Your task to perform on an android device: toggle show notifications on the lock screen Image 0: 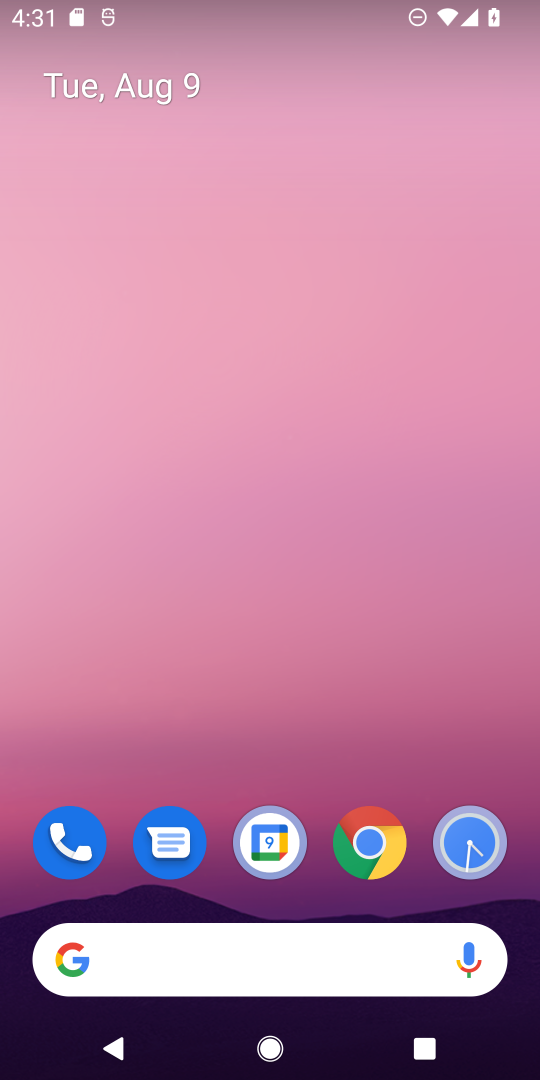
Step 0: drag from (382, 954) to (234, 342)
Your task to perform on an android device: toggle show notifications on the lock screen Image 1: 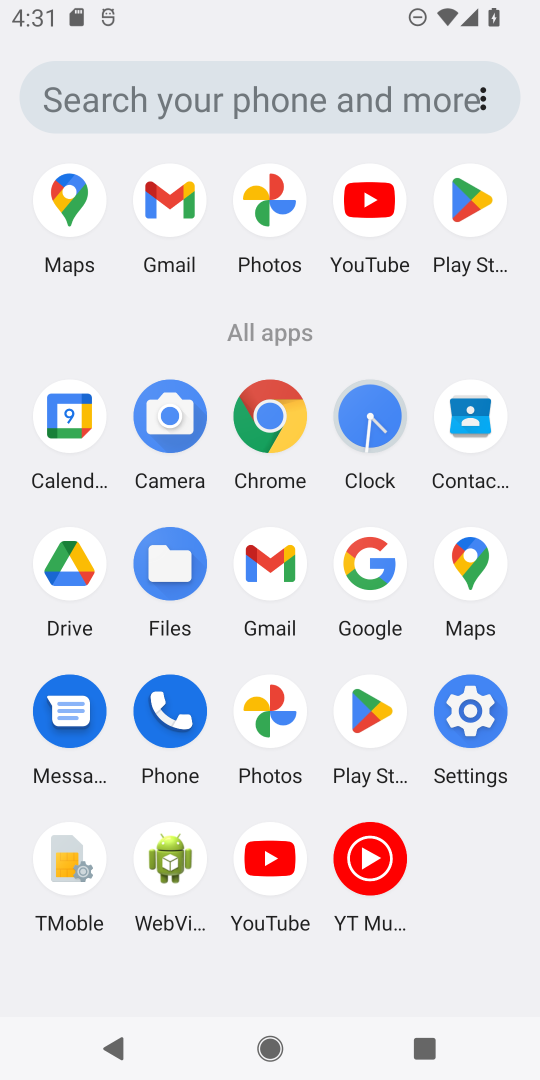
Step 1: click (501, 721)
Your task to perform on an android device: toggle show notifications on the lock screen Image 2: 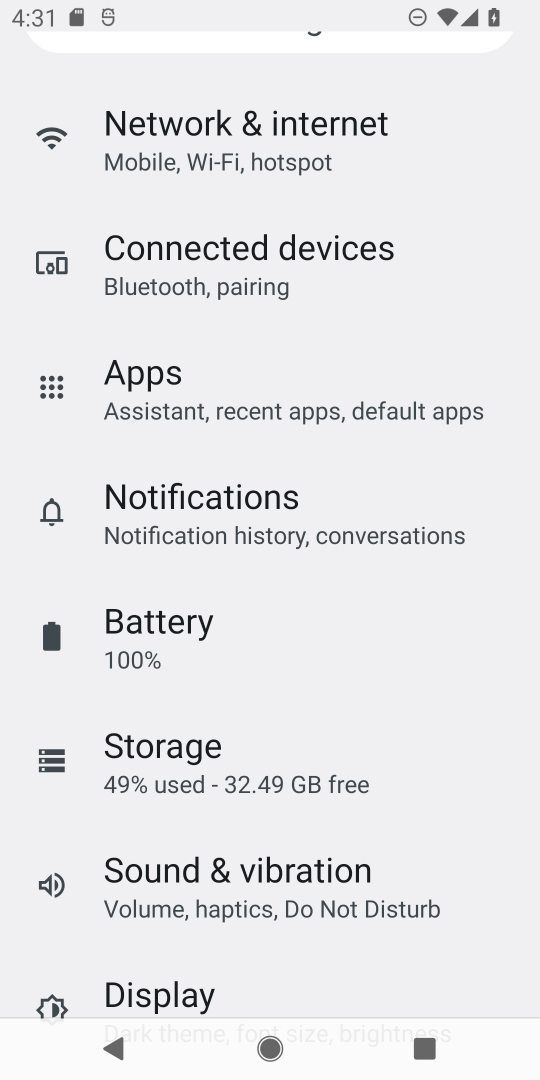
Step 2: click (264, 526)
Your task to perform on an android device: toggle show notifications on the lock screen Image 3: 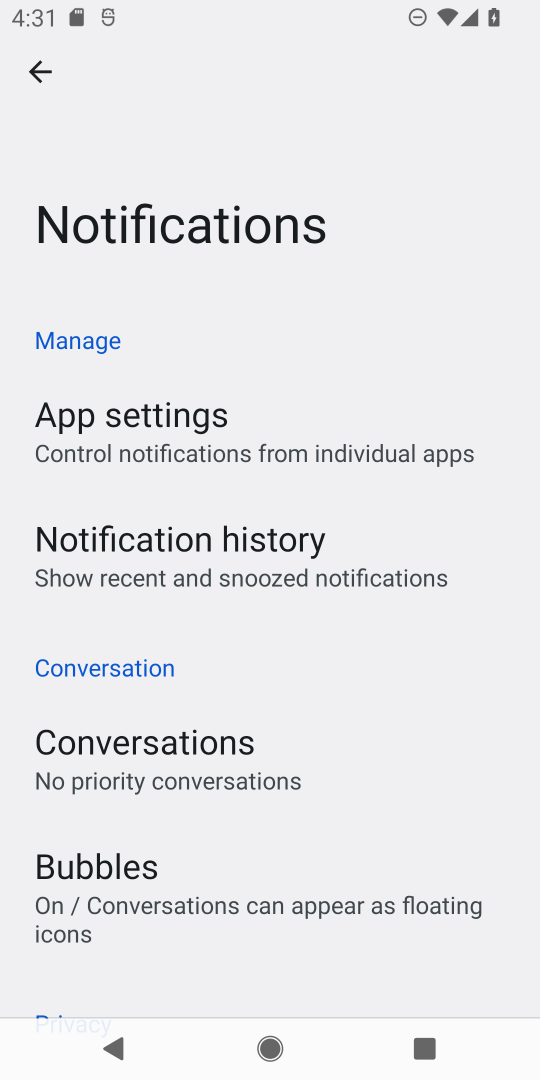
Step 3: drag from (380, 959) to (413, 346)
Your task to perform on an android device: toggle show notifications on the lock screen Image 4: 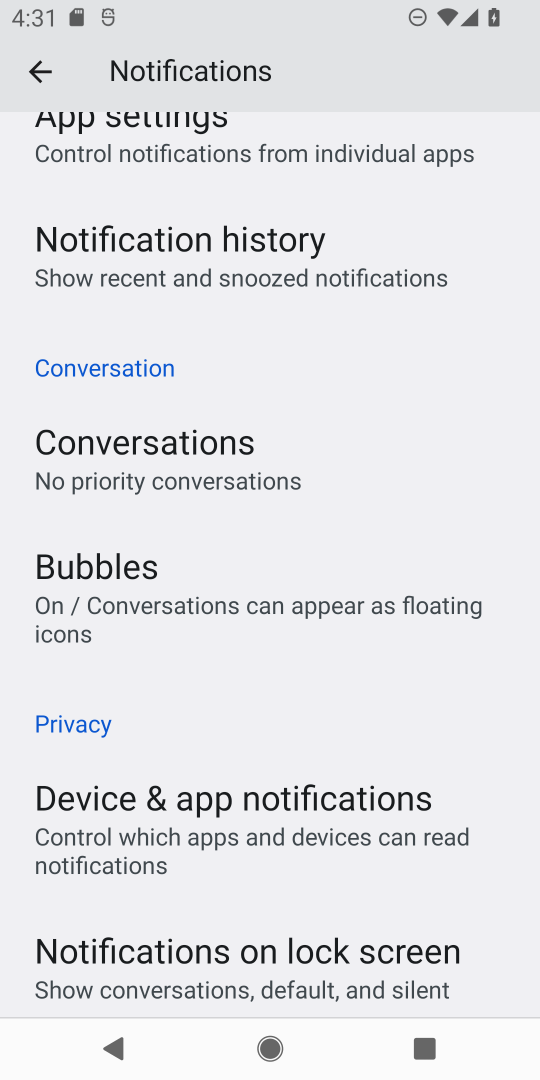
Step 4: click (365, 964)
Your task to perform on an android device: toggle show notifications on the lock screen Image 5: 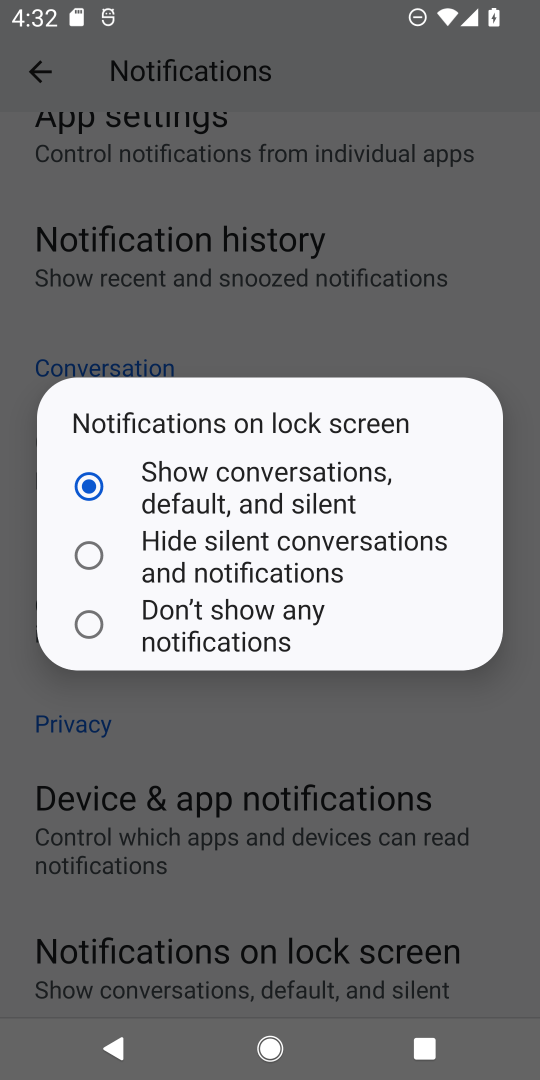
Step 5: click (86, 627)
Your task to perform on an android device: toggle show notifications on the lock screen Image 6: 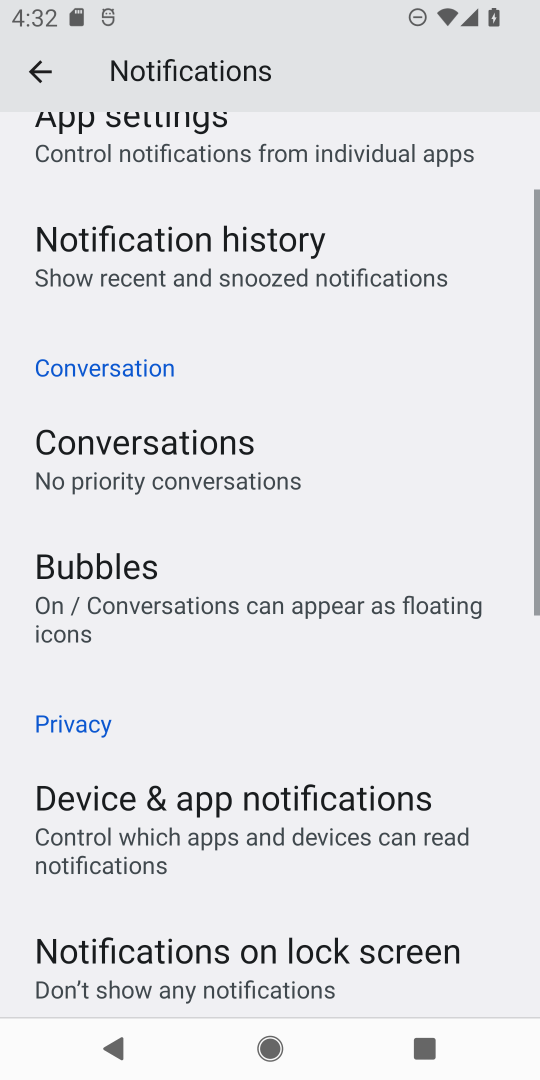
Step 6: task complete